Your task to perform on an android device: Open Google Image 0: 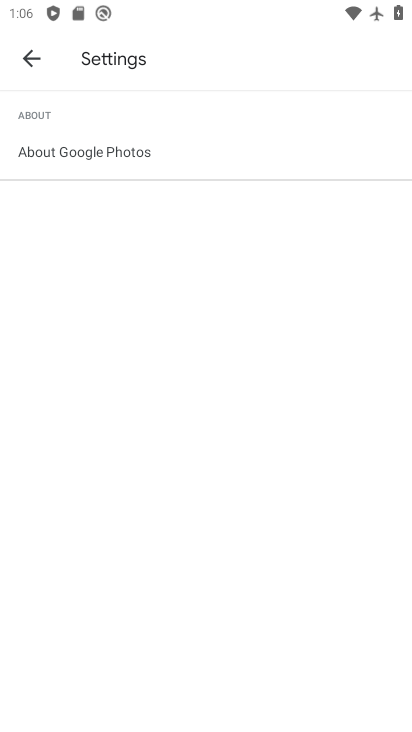
Step 0: press home button
Your task to perform on an android device: Open Google Image 1: 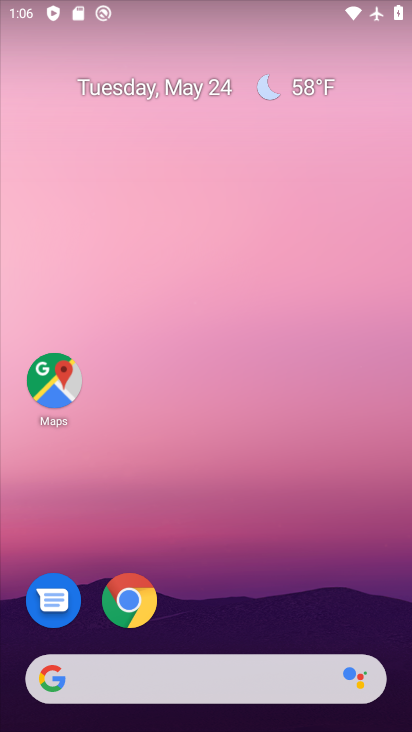
Step 1: drag from (270, 590) to (220, 71)
Your task to perform on an android device: Open Google Image 2: 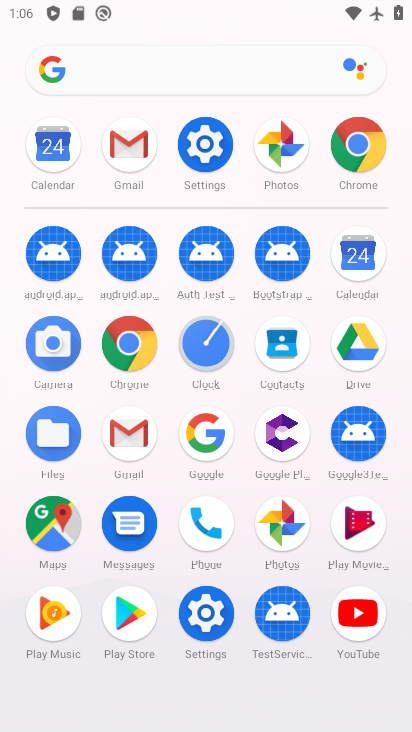
Step 2: click (211, 437)
Your task to perform on an android device: Open Google Image 3: 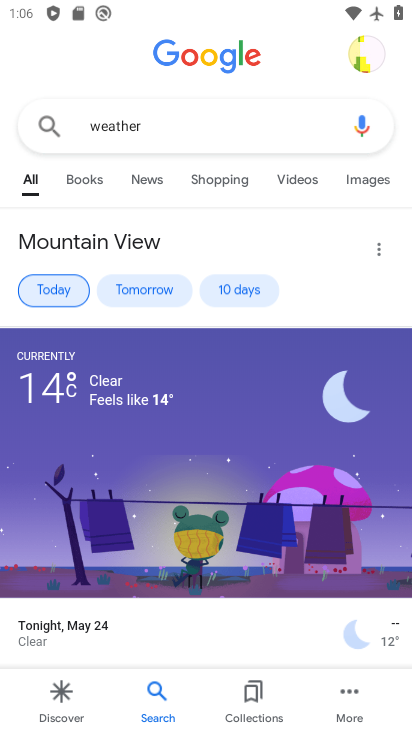
Step 3: task complete